Your task to perform on an android device: Check the news Image 0: 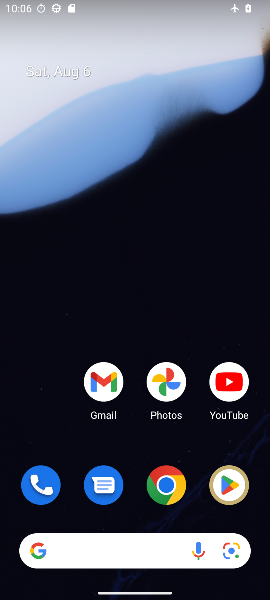
Step 0: drag from (150, 419) to (149, 31)
Your task to perform on an android device: Check the news Image 1: 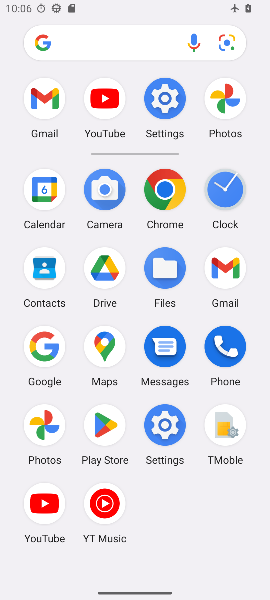
Step 1: click (162, 187)
Your task to perform on an android device: Check the news Image 2: 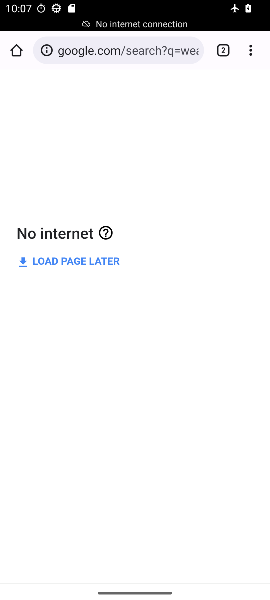
Step 2: click (146, 51)
Your task to perform on an android device: Check the news Image 3: 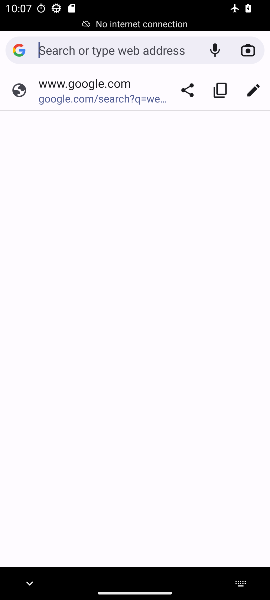
Step 3: type "news"
Your task to perform on an android device: Check the news Image 4: 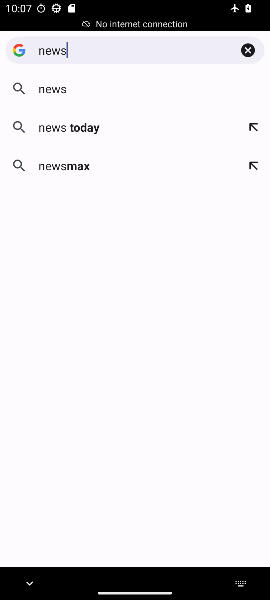
Step 4: click (65, 94)
Your task to perform on an android device: Check the news Image 5: 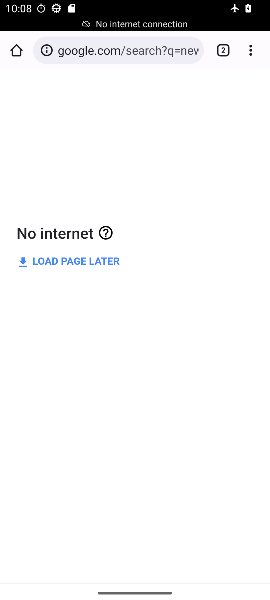
Step 5: press home button
Your task to perform on an android device: Check the news Image 6: 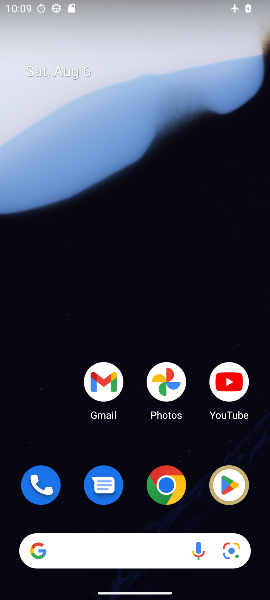
Step 6: drag from (202, 443) to (96, 13)
Your task to perform on an android device: Check the news Image 7: 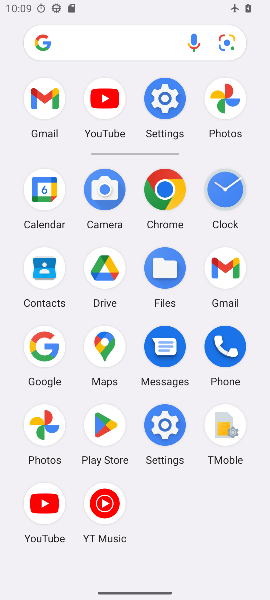
Step 7: click (164, 185)
Your task to perform on an android device: Check the news Image 8: 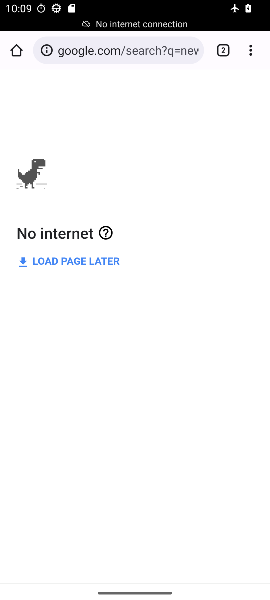
Step 8: click (148, 39)
Your task to perform on an android device: Check the news Image 9: 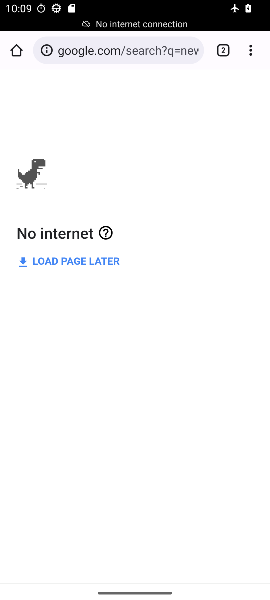
Step 9: click (148, 46)
Your task to perform on an android device: Check the news Image 10: 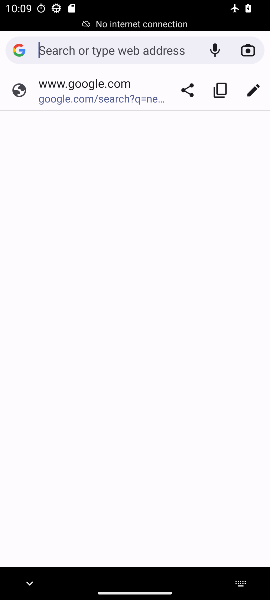
Step 10: type "news"
Your task to perform on an android device: Check the news Image 11: 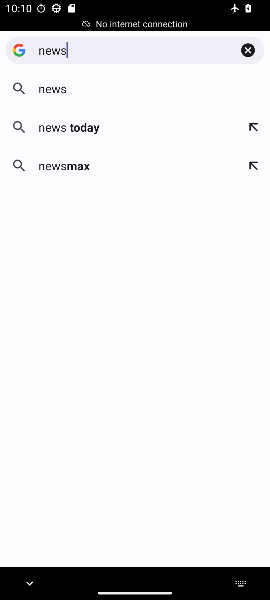
Step 11: click (55, 90)
Your task to perform on an android device: Check the news Image 12: 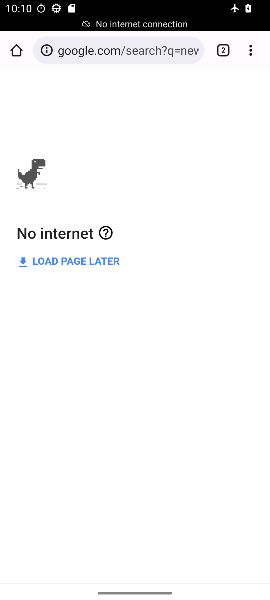
Step 12: task complete